Your task to perform on an android device: see sites visited before in the chrome app Image 0: 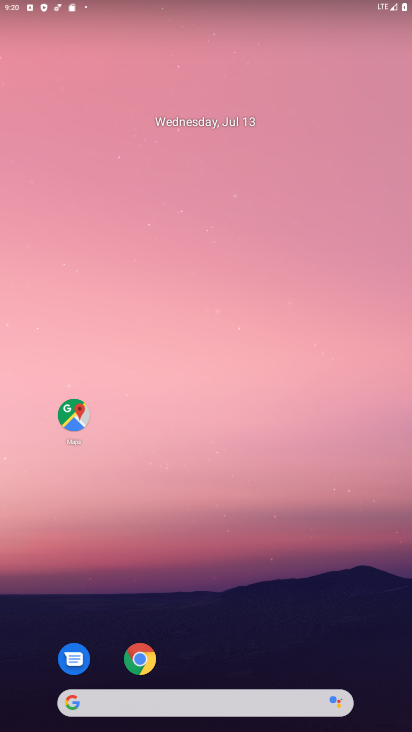
Step 0: click (139, 660)
Your task to perform on an android device: see sites visited before in the chrome app Image 1: 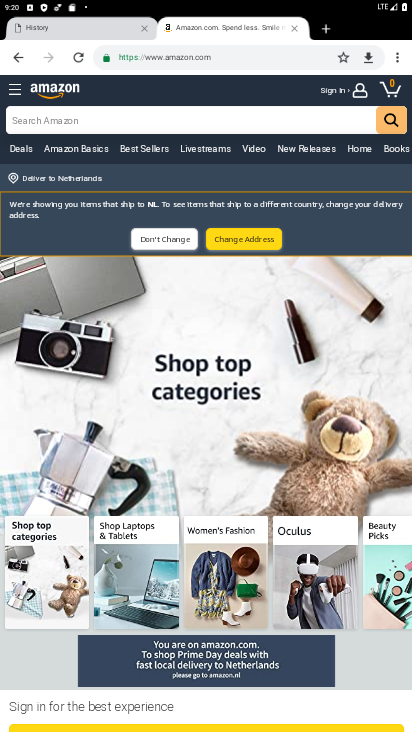
Step 1: click (397, 60)
Your task to perform on an android device: see sites visited before in the chrome app Image 2: 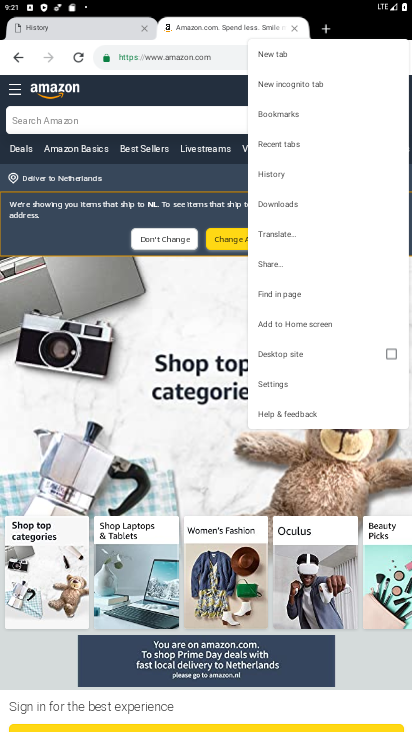
Step 2: click (269, 169)
Your task to perform on an android device: see sites visited before in the chrome app Image 3: 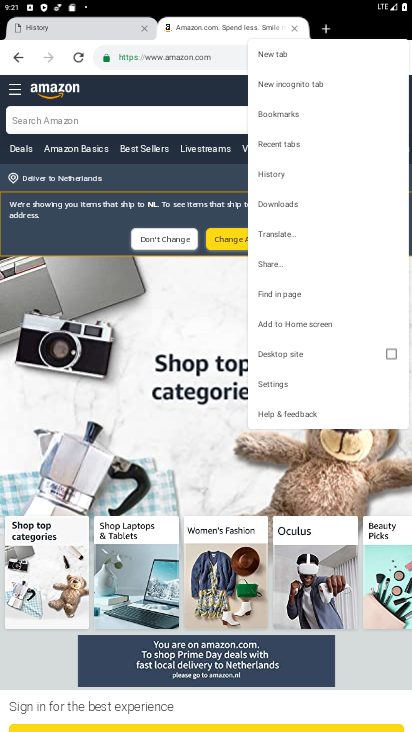
Step 3: click (269, 169)
Your task to perform on an android device: see sites visited before in the chrome app Image 4: 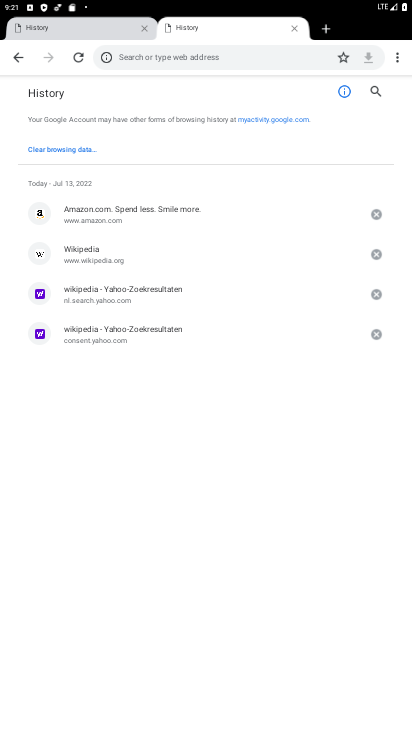
Step 4: task complete